Your task to perform on an android device: set the stopwatch Image 0: 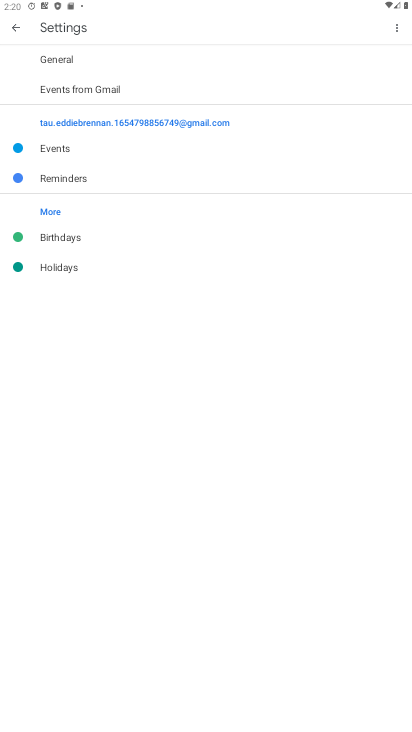
Step 0: drag from (189, 545) to (237, 271)
Your task to perform on an android device: set the stopwatch Image 1: 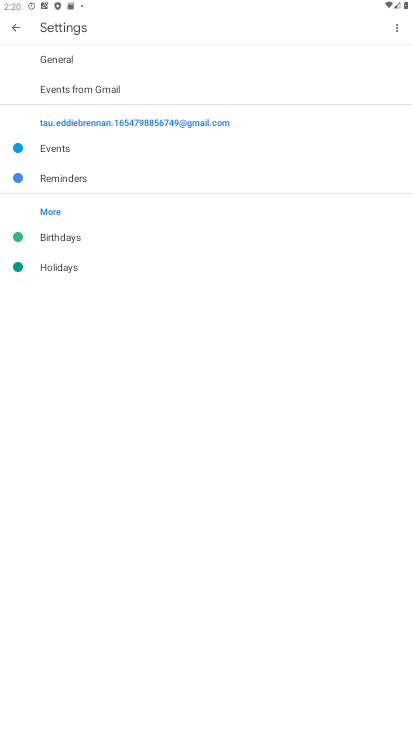
Step 1: press home button
Your task to perform on an android device: set the stopwatch Image 2: 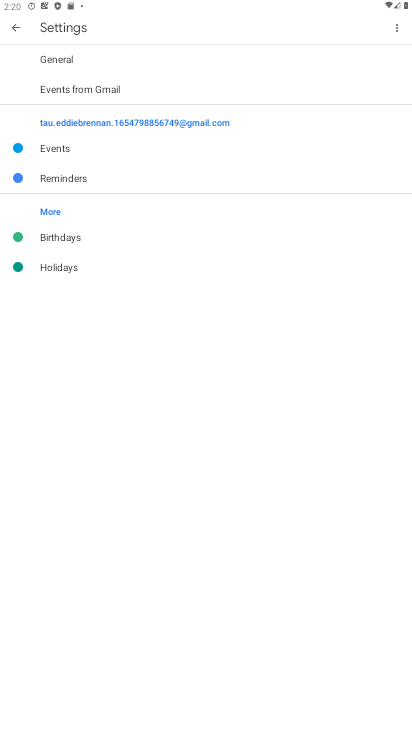
Step 2: drag from (251, 293) to (309, 91)
Your task to perform on an android device: set the stopwatch Image 3: 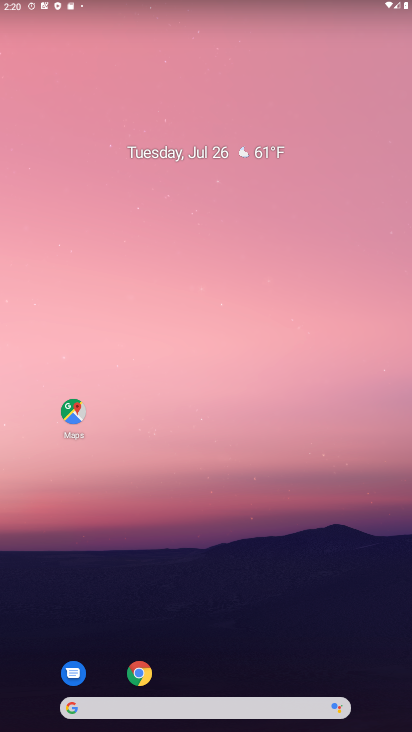
Step 3: drag from (186, 646) to (212, 251)
Your task to perform on an android device: set the stopwatch Image 4: 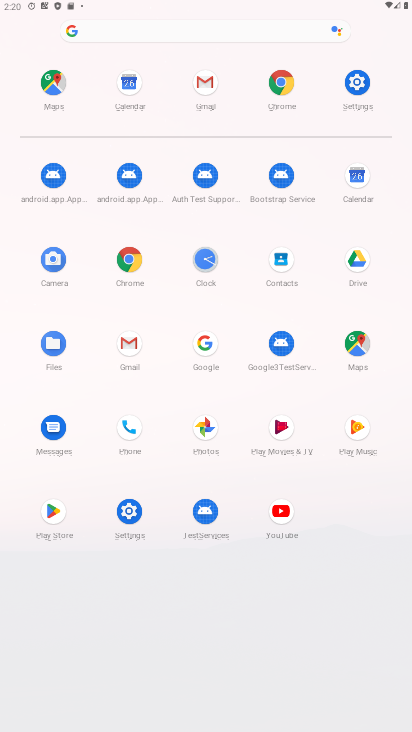
Step 4: click (200, 255)
Your task to perform on an android device: set the stopwatch Image 5: 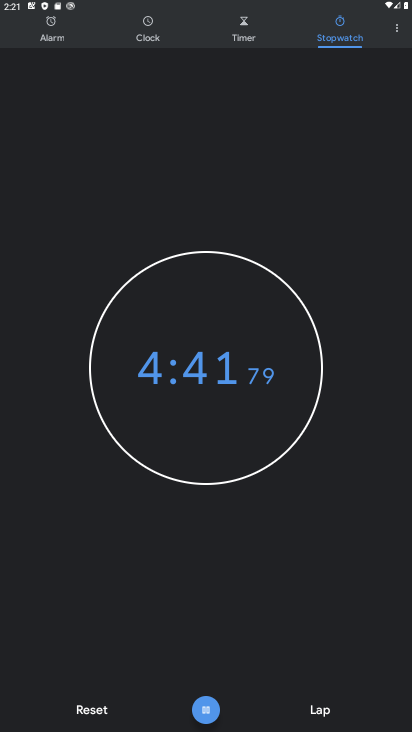
Step 5: click (90, 716)
Your task to perform on an android device: set the stopwatch Image 6: 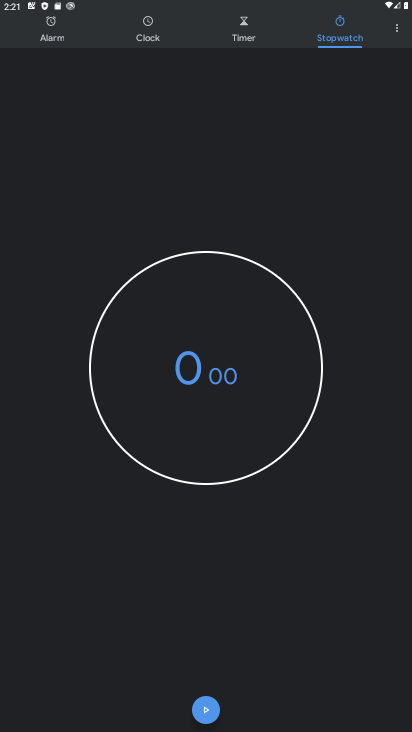
Step 6: click (208, 704)
Your task to perform on an android device: set the stopwatch Image 7: 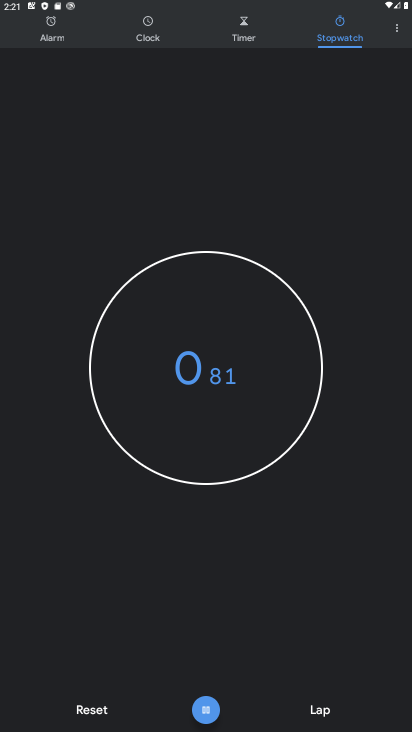
Step 7: task complete